Your task to perform on an android device: Clear the shopping cart on costco.com. Add "acer nitro" to the cart on costco.com, then select checkout. Image 0: 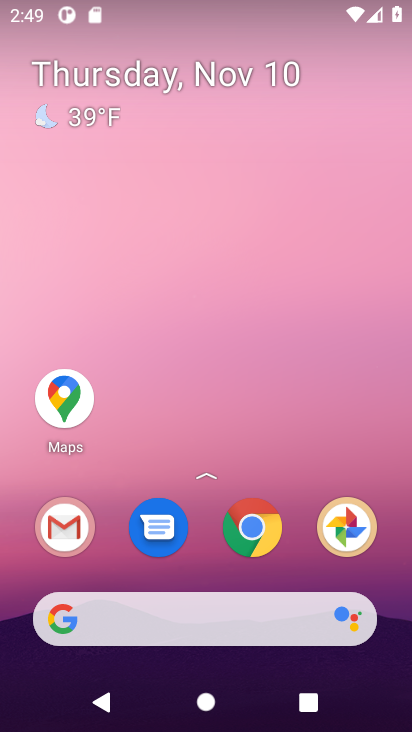
Step 0: drag from (112, 562) to (162, 94)
Your task to perform on an android device: Clear the shopping cart on costco.com. Add "acer nitro" to the cart on costco.com, then select checkout. Image 1: 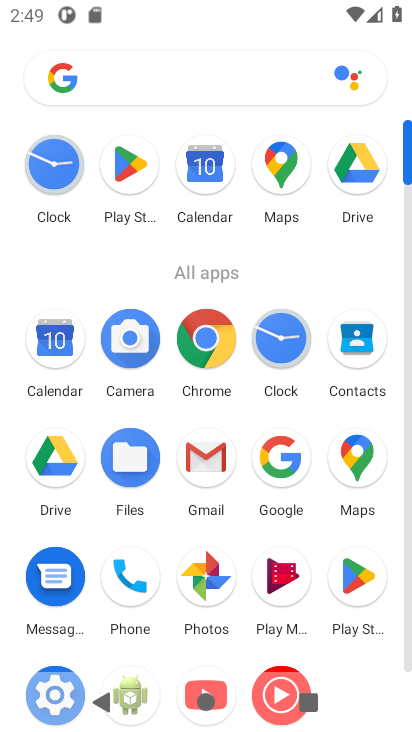
Step 1: click (199, 342)
Your task to perform on an android device: Clear the shopping cart on costco.com. Add "acer nitro" to the cart on costco.com, then select checkout. Image 2: 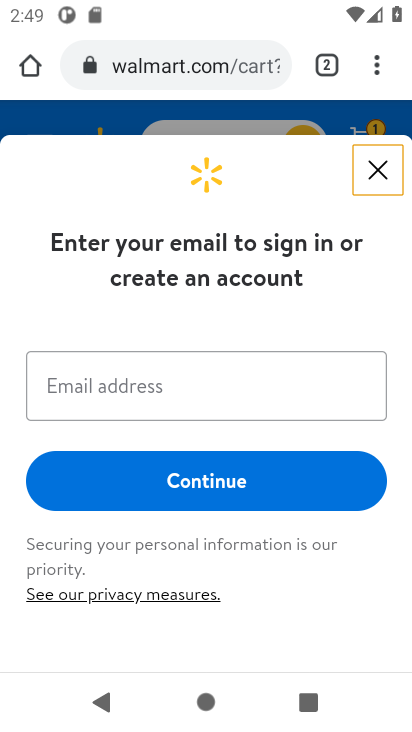
Step 2: click (172, 72)
Your task to perform on an android device: Clear the shopping cart on costco.com. Add "acer nitro" to the cart on costco.com, then select checkout. Image 3: 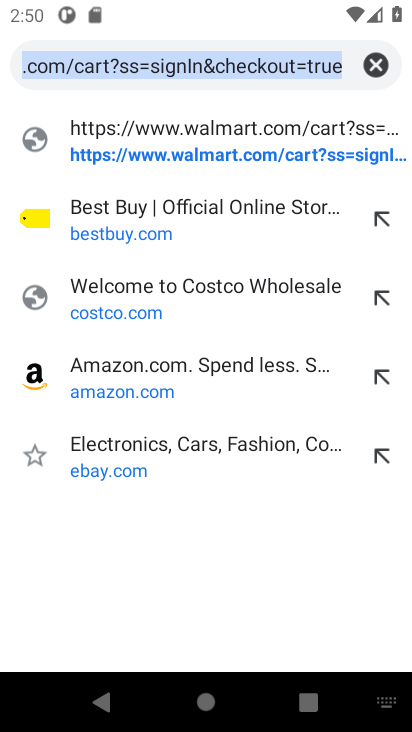
Step 3: click (374, 56)
Your task to perform on an android device: Clear the shopping cart on costco.com. Add "acer nitro" to the cart on costco.com, then select checkout. Image 4: 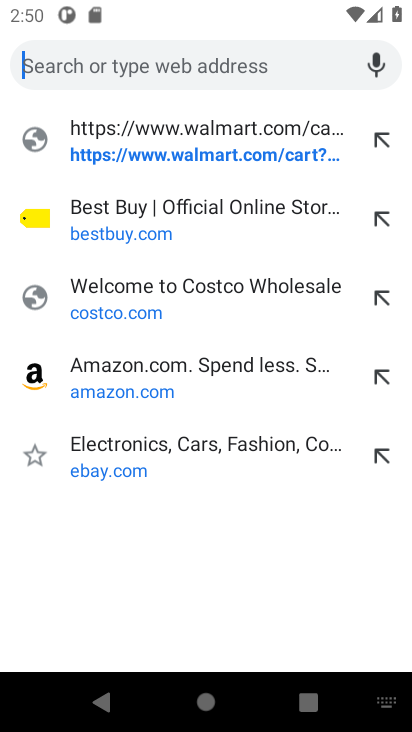
Step 4: type "costco.com"
Your task to perform on an android device: Clear the shopping cart on costco.com. Add "acer nitro" to the cart on costco.com, then select checkout. Image 5: 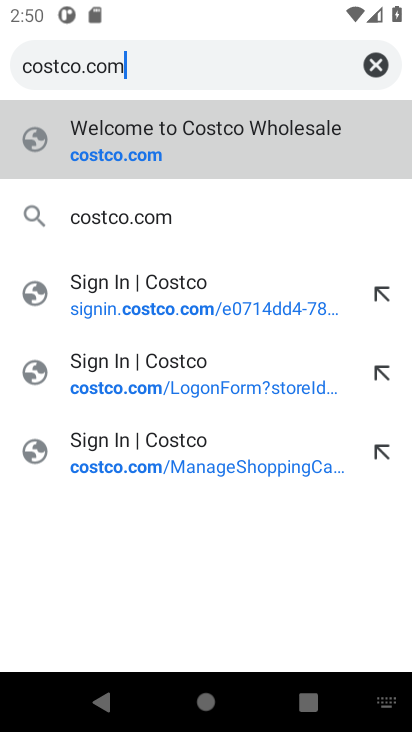
Step 5: press enter
Your task to perform on an android device: Clear the shopping cart on costco.com. Add "acer nitro" to the cart on costco.com, then select checkout. Image 6: 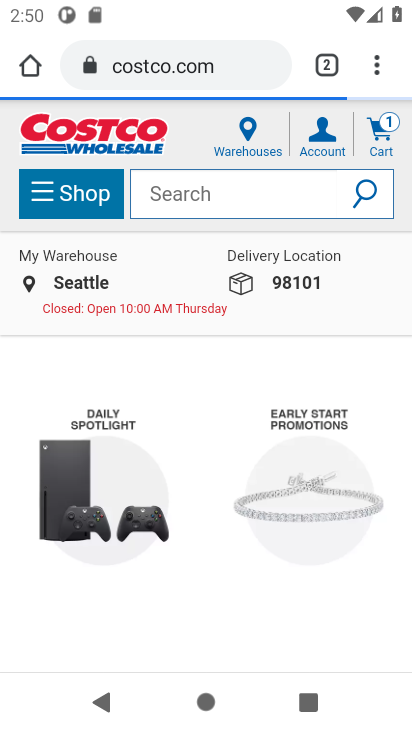
Step 6: click (390, 126)
Your task to perform on an android device: Clear the shopping cart on costco.com. Add "acer nitro" to the cart on costco.com, then select checkout. Image 7: 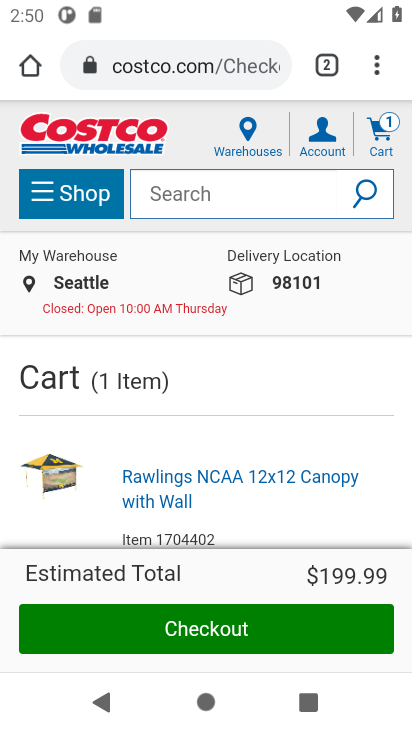
Step 7: drag from (162, 509) to (176, 264)
Your task to perform on an android device: Clear the shopping cart on costco.com. Add "acer nitro" to the cart on costco.com, then select checkout. Image 8: 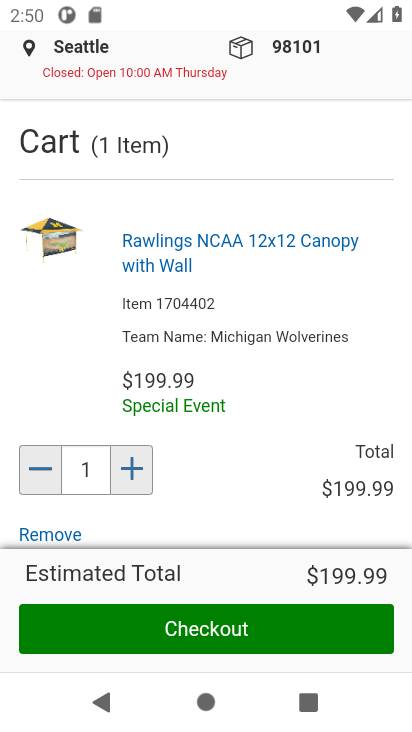
Step 8: click (45, 468)
Your task to perform on an android device: Clear the shopping cart on costco.com. Add "acer nitro" to the cart on costco.com, then select checkout. Image 9: 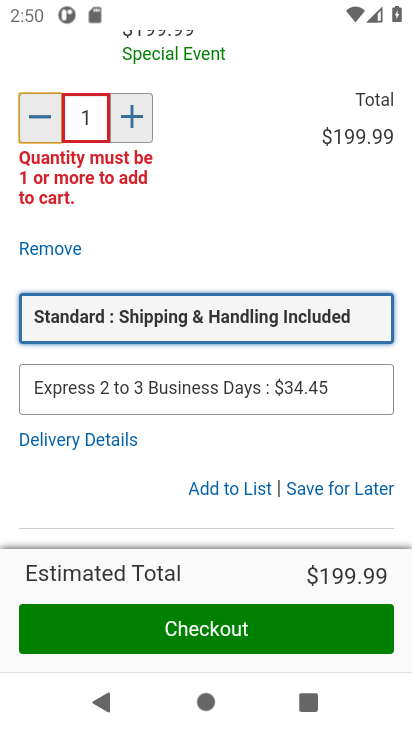
Step 9: drag from (211, 197) to (266, 471)
Your task to perform on an android device: Clear the shopping cart on costco.com. Add "acer nitro" to the cart on costco.com, then select checkout. Image 10: 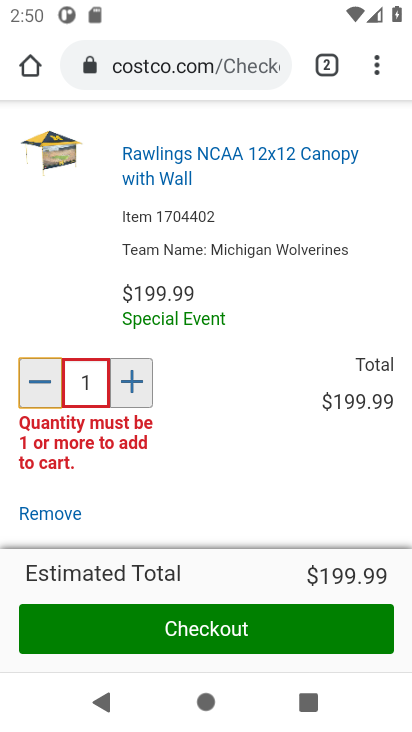
Step 10: drag from (252, 403) to (249, 459)
Your task to perform on an android device: Clear the shopping cart on costco.com. Add "acer nitro" to the cart on costco.com, then select checkout. Image 11: 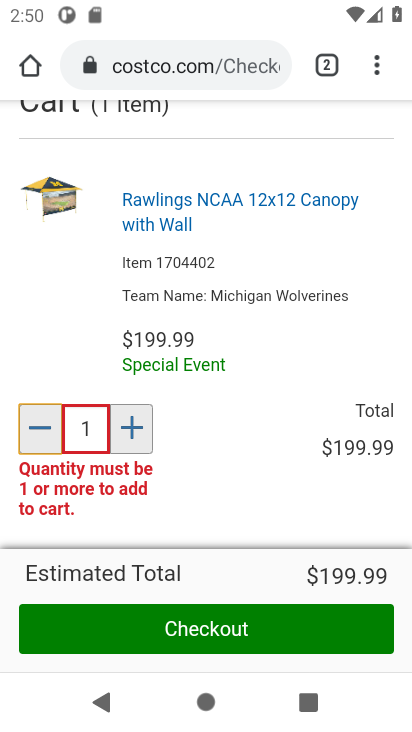
Step 11: drag from (307, 217) to (313, 480)
Your task to perform on an android device: Clear the shopping cart on costco.com. Add "acer nitro" to the cart on costco.com, then select checkout. Image 12: 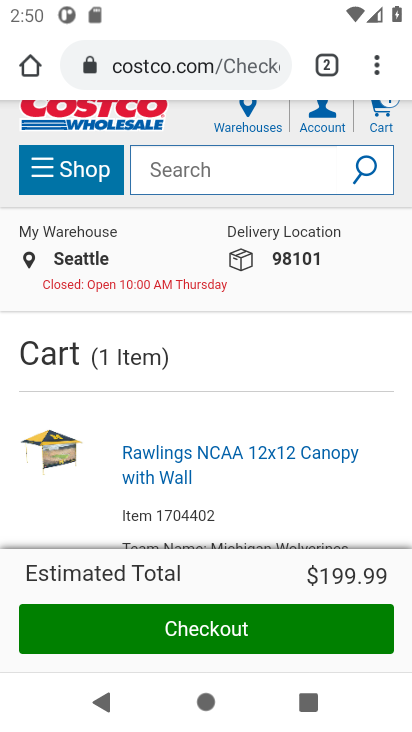
Step 12: drag from (345, 255) to (327, 465)
Your task to perform on an android device: Clear the shopping cart on costco.com. Add "acer nitro" to the cart on costco.com, then select checkout. Image 13: 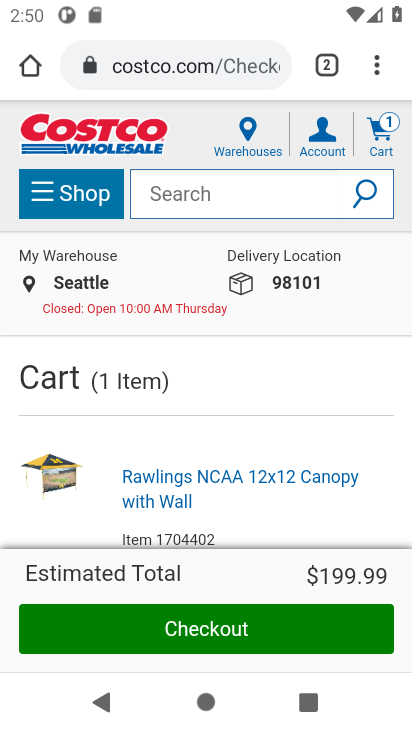
Step 13: drag from (298, 503) to (286, 221)
Your task to perform on an android device: Clear the shopping cart on costco.com. Add "acer nitro" to the cart on costco.com, then select checkout. Image 14: 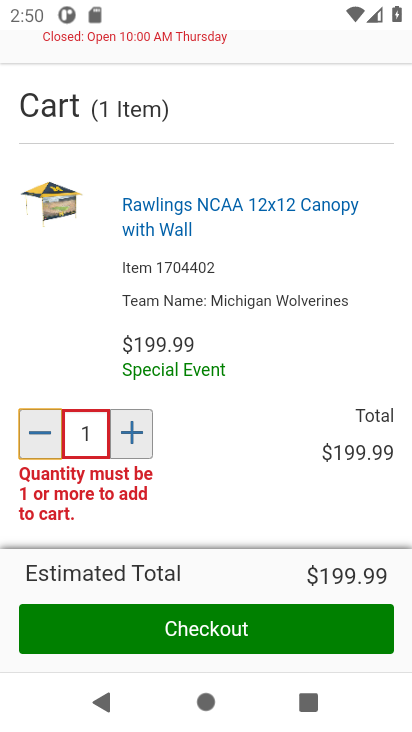
Step 14: drag from (248, 449) to (205, 163)
Your task to perform on an android device: Clear the shopping cart on costco.com. Add "acer nitro" to the cart on costco.com, then select checkout. Image 15: 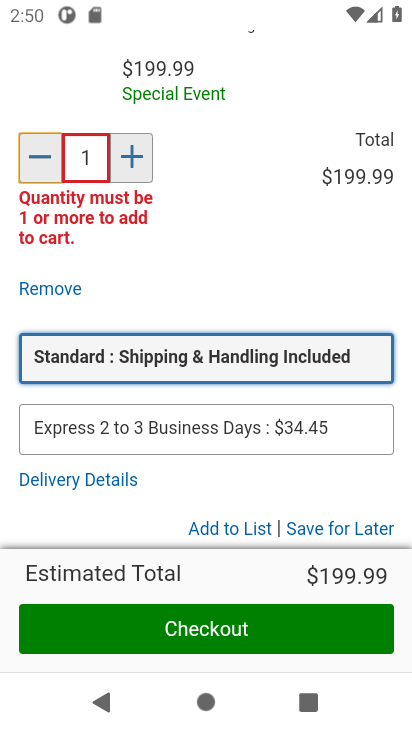
Step 15: drag from (203, 389) to (200, 254)
Your task to perform on an android device: Clear the shopping cart on costco.com. Add "acer nitro" to the cart on costco.com, then select checkout. Image 16: 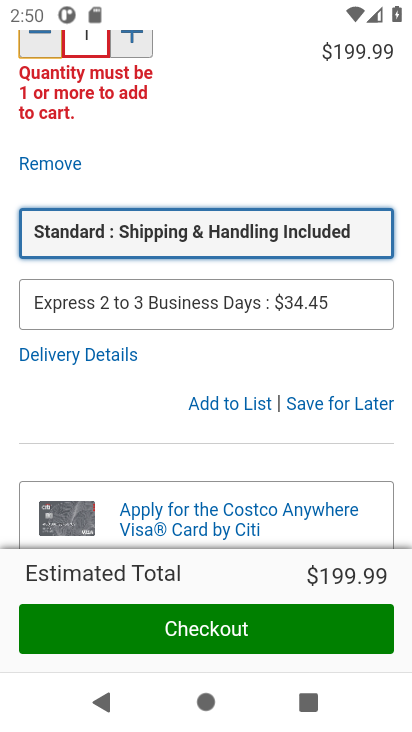
Step 16: drag from (219, 458) to (217, 189)
Your task to perform on an android device: Clear the shopping cart on costco.com. Add "acer nitro" to the cart on costco.com, then select checkout. Image 17: 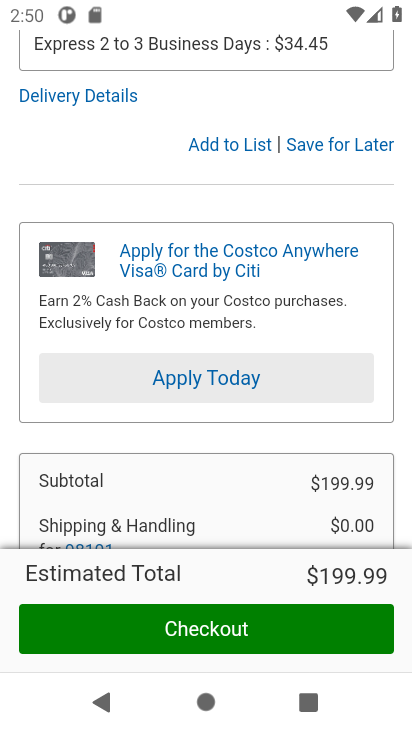
Step 17: drag from (206, 460) to (219, 194)
Your task to perform on an android device: Clear the shopping cart on costco.com. Add "acer nitro" to the cart on costco.com, then select checkout. Image 18: 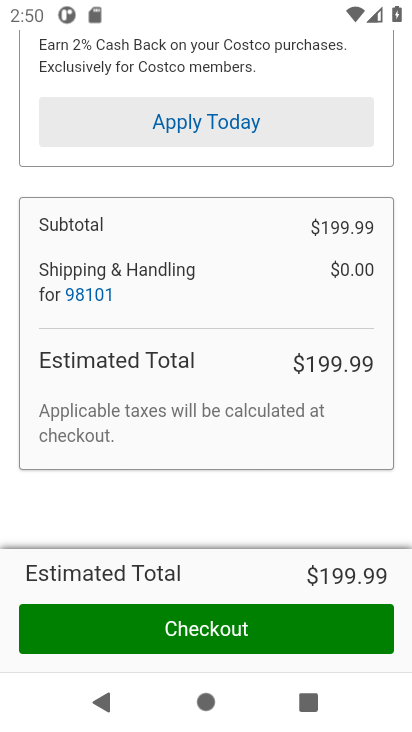
Step 18: drag from (234, 494) to (231, 218)
Your task to perform on an android device: Clear the shopping cart on costco.com. Add "acer nitro" to the cart on costco.com, then select checkout. Image 19: 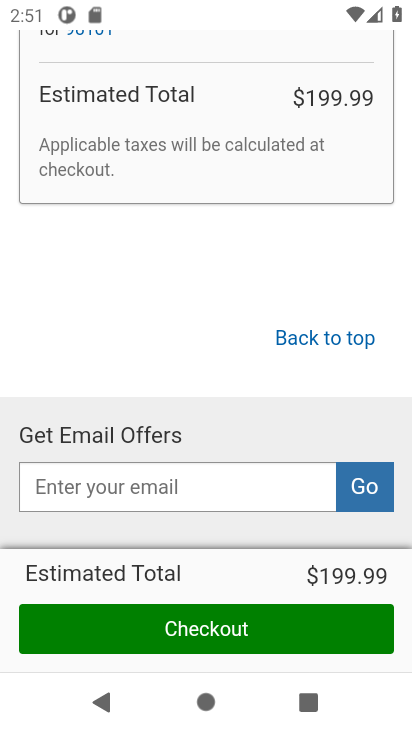
Step 19: drag from (186, 431) to (204, 218)
Your task to perform on an android device: Clear the shopping cart on costco.com. Add "acer nitro" to the cart on costco.com, then select checkout. Image 20: 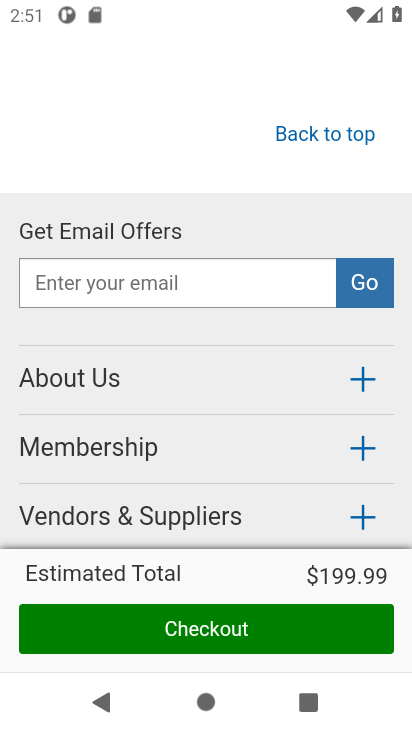
Step 20: drag from (179, 478) to (199, 186)
Your task to perform on an android device: Clear the shopping cart on costco.com. Add "acer nitro" to the cart on costco.com, then select checkout. Image 21: 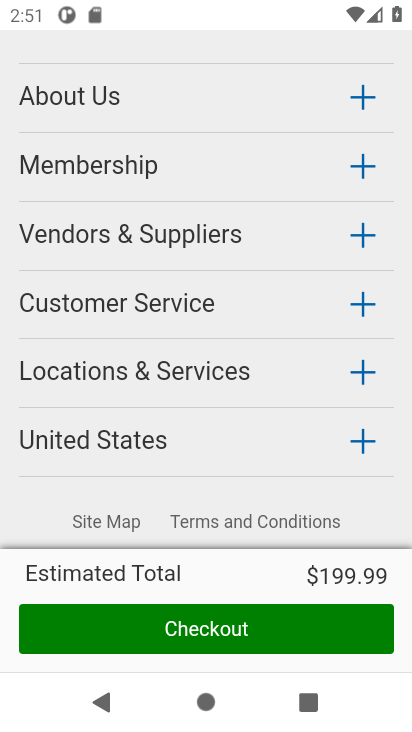
Step 21: drag from (226, 177) to (217, 458)
Your task to perform on an android device: Clear the shopping cart on costco.com. Add "acer nitro" to the cart on costco.com, then select checkout. Image 22: 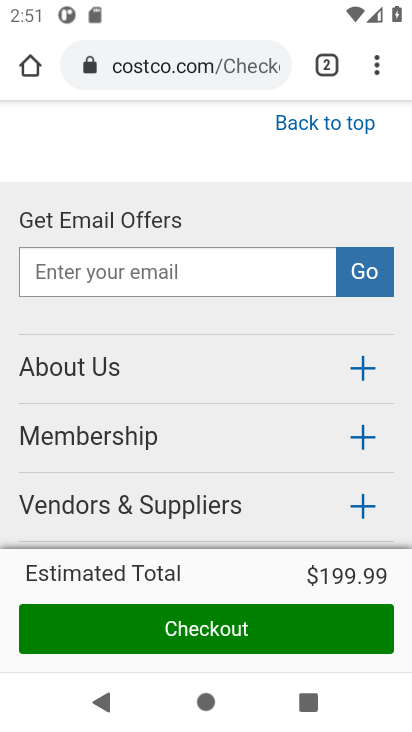
Step 22: drag from (281, 206) to (242, 467)
Your task to perform on an android device: Clear the shopping cart on costco.com. Add "acer nitro" to the cart on costco.com, then select checkout. Image 23: 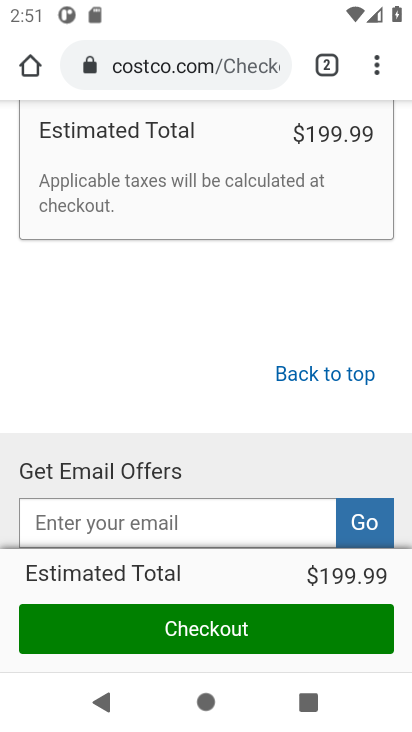
Step 23: drag from (257, 200) to (252, 473)
Your task to perform on an android device: Clear the shopping cart on costco.com. Add "acer nitro" to the cart on costco.com, then select checkout. Image 24: 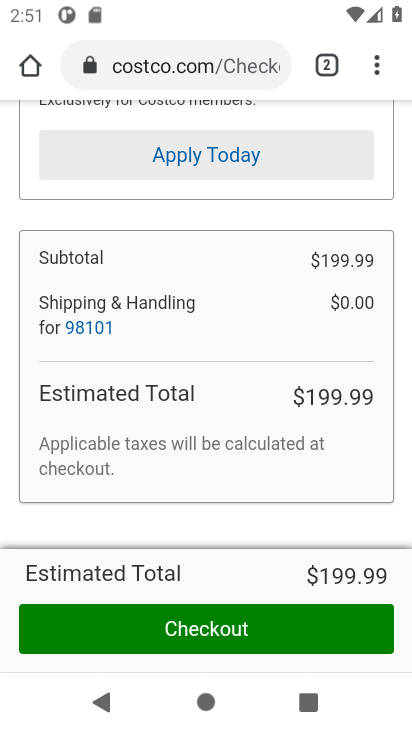
Step 24: drag from (281, 75) to (268, 402)
Your task to perform on an android device: Clear the shopping cart on costco.com. Add "acer nitro" to the cart on costco.com, then select checkout. Image 25: 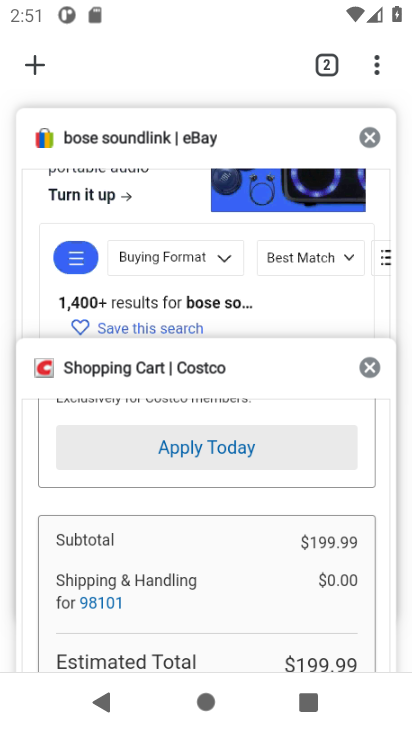
Step 25: drag from (239, 151) to (248, 355)
Your task to perform on an android device: Clear the shopping cart on costco.com. Add "acer nitro" to the cart on costco.com, then select checkout. Image 26: 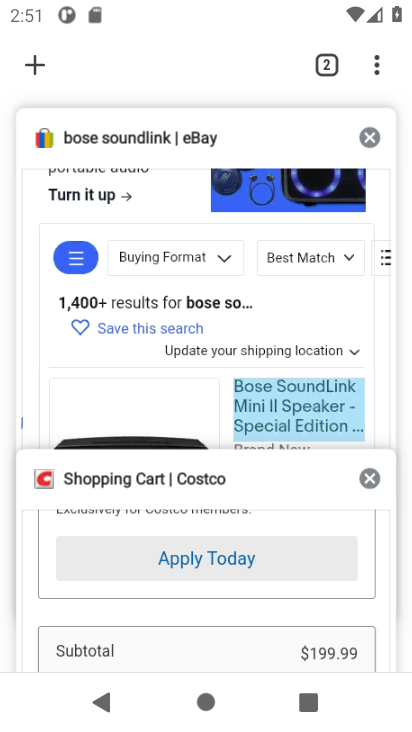
Step 26: click (196, 471)
Your task to perform on an android device: Clear the shopping cart on costco.com. Add "acer nitro" to the cart on costco.com, then select checkout. Image 27: 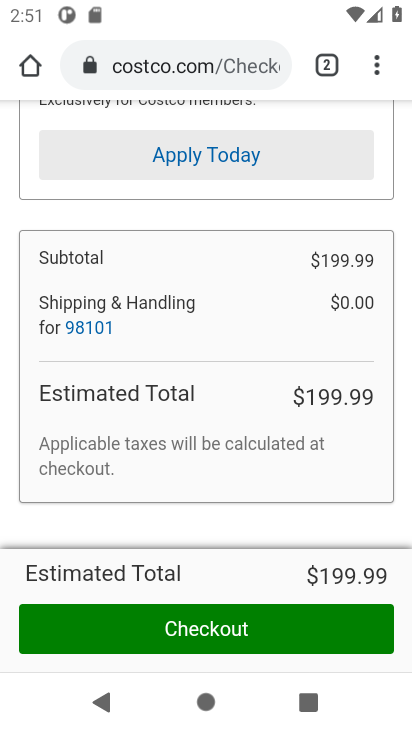
Step 27: drag from (195, 296) to (232, 481)
Your task to perform on an android device: Clear the shopping cart on costco.com. Add "acer nitro" to the cart on costco.com, then select checkout. Image 28: 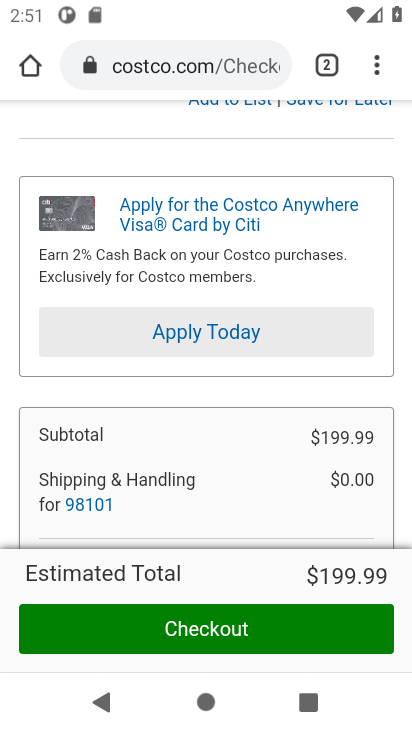
Step 28: drag from (196, 256) to (216, 470)
Your task to perform on an android device: Clear the shopping cart on costco.com. Add "acer nitro" to the cart on costco.com, then select checkout. Image 29: 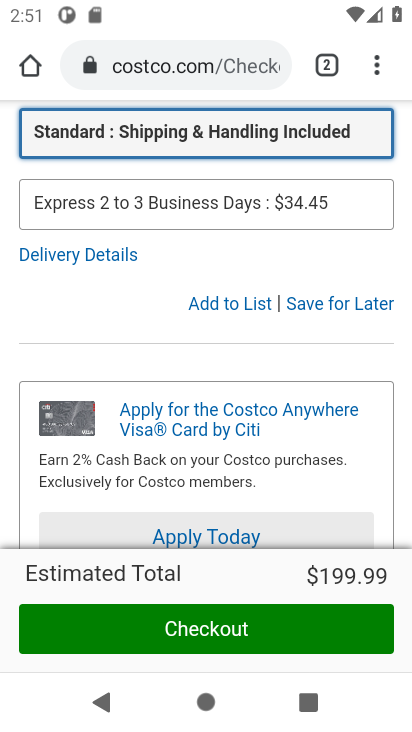
Step 29: drag from (219, 193) to (238, 428)
Your task to perform on an android device: Clear the shopping cart on costco.com. Add "acer nitro" to the cart on costco.com, then select checkout. Image 30: 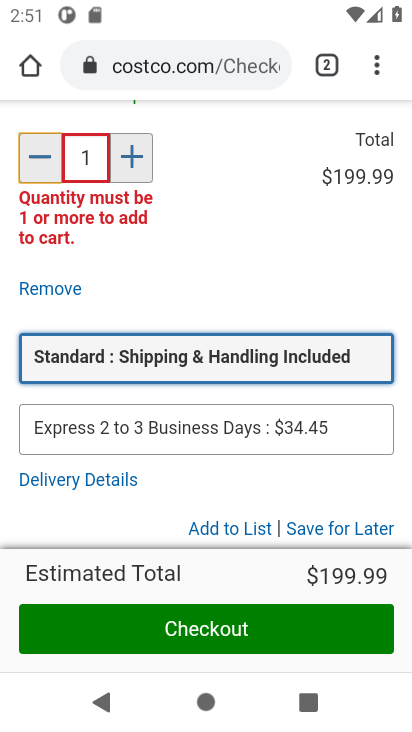
Step 30: drag from (253, 455) to (248, 266)
Your task to perform on an android device: Clear the shopping cart on costco.com. Add "acer nitro" to the cart on costco.com, then select checkout. Image 31: 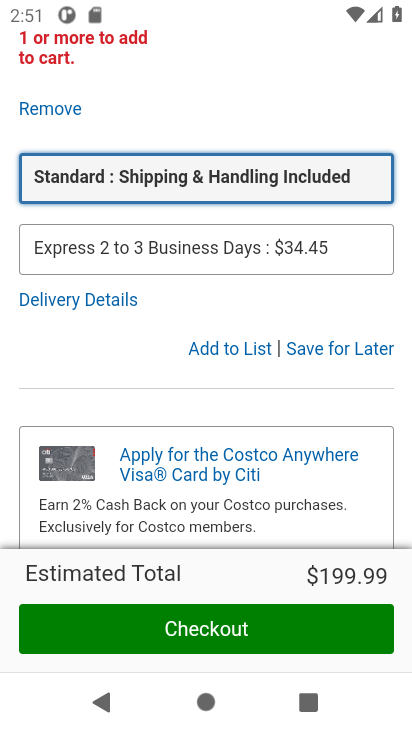
Step 31: drag from (251, 277) to (245, 410)
Your task to perform on an android device: Clear the shopping cart on costco.com. Add "acer nitro" to the cart on costco.com, then select checkout. Image 32: 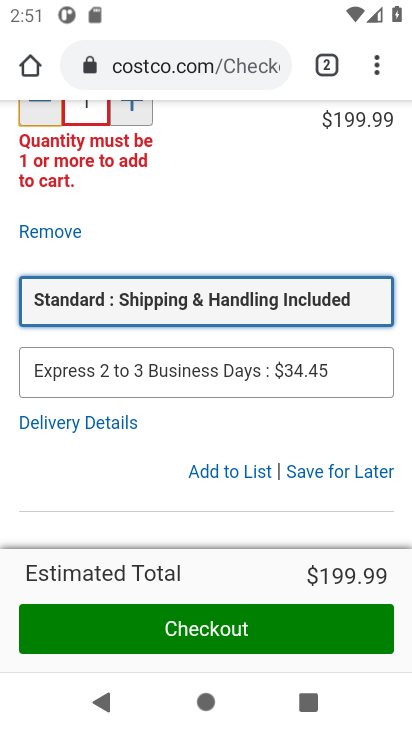
Step 32: drag from (139, 220) to (161, 400)
Your task to perform on an android device: Clear the shopping cart on costco.com. Add "acer nitro" to the cart on costco.com, then select checkout. Image 33: 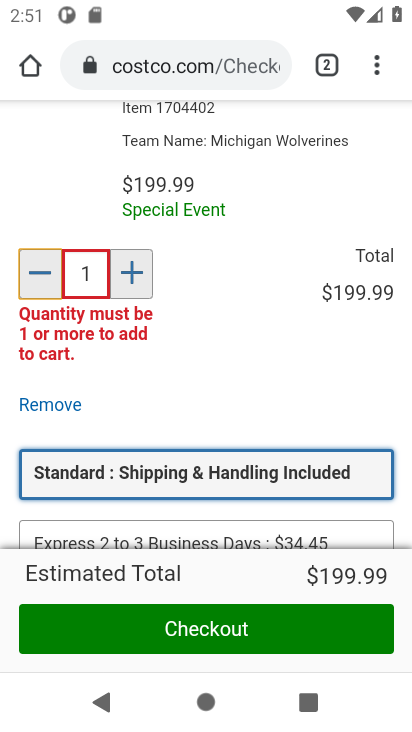
Step 33: drag from (180, 168) to (188, 386)
Your task to perform on an android device: Clear the shopping cart on costco.com. Add "acer nitro" to the cart on costco.com, then select checkout. Image 34: 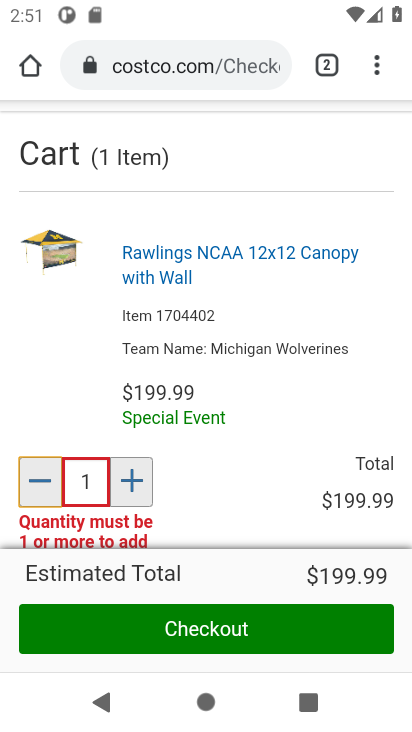
Step 34: drag from (109, 484) to (107, 288)
Your task to perform on an android device: Clear the shopping cart on costco.com. Add "acer nitro" to the cart on costco.com, then select checkout. Image 35: 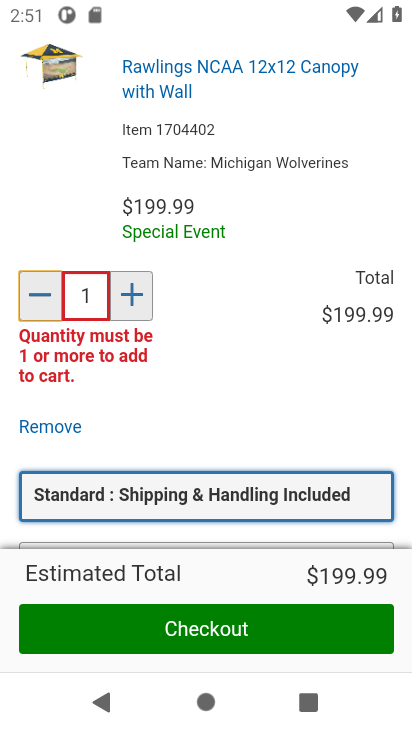
Step 35: click (49, 425)
Your task to perform on an android device: Clear the shopping cart on costco.com. Add "acer nitro" to the cart on costco.com, then select checkout. Image 36: 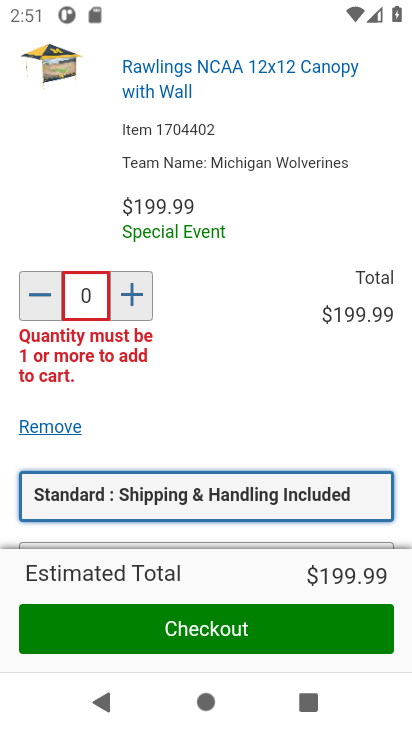
Step 36: click (49, 425)
Your task to perform on an android device: Clear the shopping cart on costco.com. Add "acer nitro" to the cart on costco.com, then select checkout. Image 37: 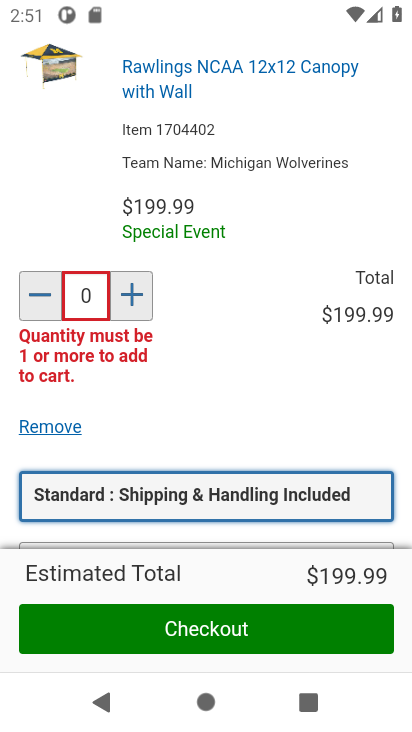
Step 37: click (50, 425)
Your task to perform on an android device: Clear the shopping cart on costco.com. Add "acer nitro" to the cart on costco.com, then select checkout. Image 38: 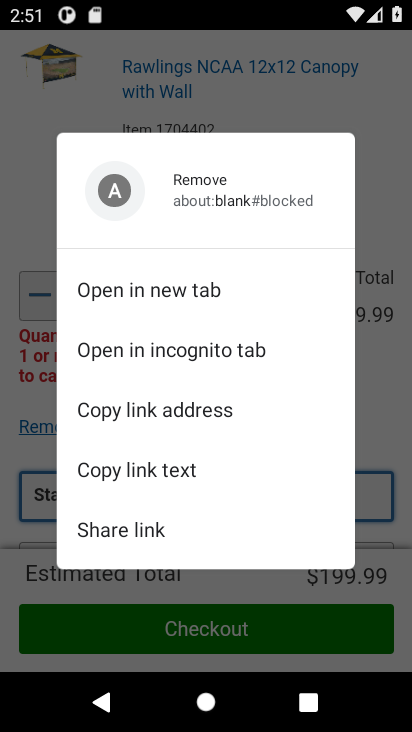
Step 38: click (26, 399)
Your task to perform on an android device: Clear the shopping cart on costco.com. Add "acer nitro" to the cart on costco.com, then select checkout. Image 39: 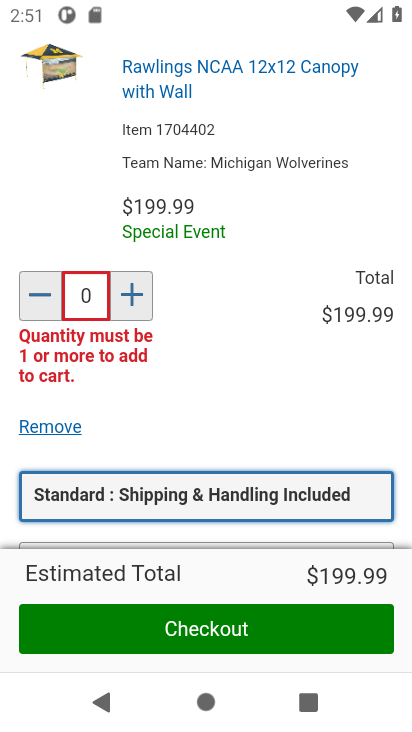
Step 39: click (41, 429)
Your task to perform on an android device: Clear the shopping cart on costco.com. Add "acer nitro" to the cart on costco.com, then select checkout. Image 40: 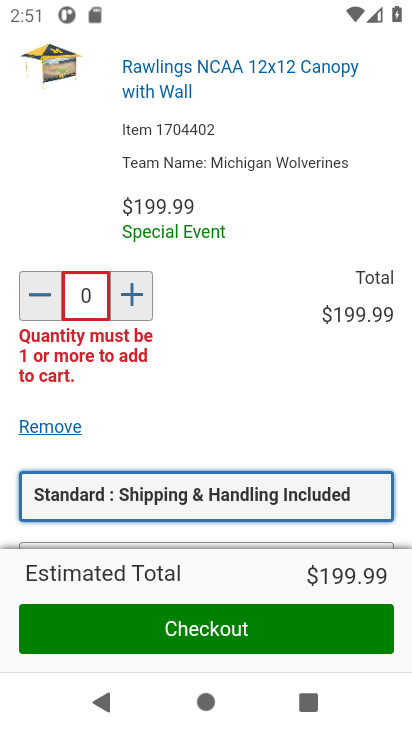
Step 40: click (41, 429)
Your task to perform on an android device: Clear the shopping cart on costco.com. Add "acer nitro" to the cart on costco.com, then select checkout. Image 41: 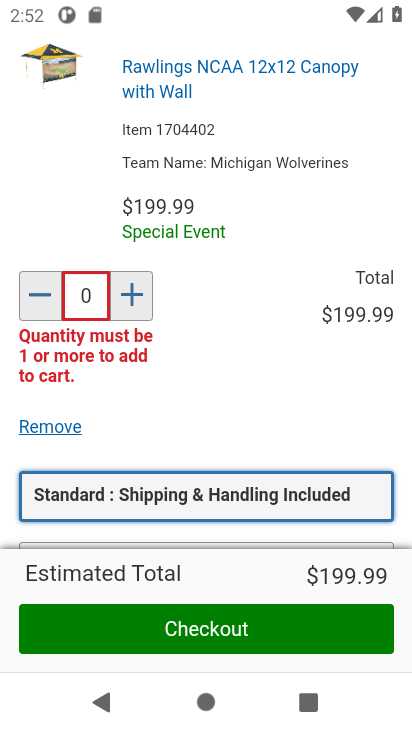
Step 41: click (41, 429)
Your task to perform on an android device: Clear the shopping cart on costco.com. Add "acer nitro" to the cart on costco.com, then select checkout. Image 42: 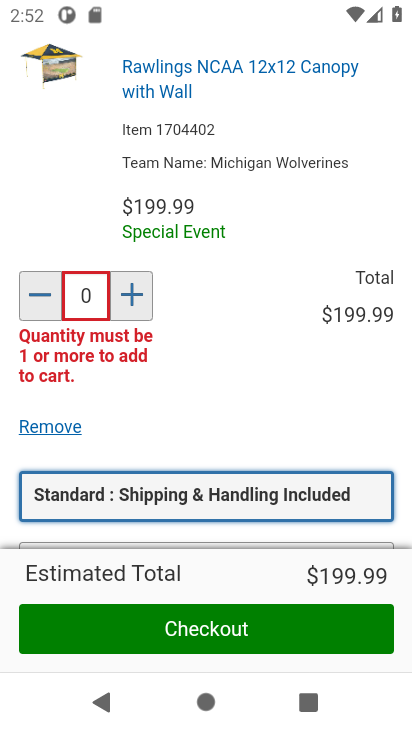
Step 42: click (41, 429)
Your task to perform on an android device: Clear the shopping cart on costco.com. Add "acer nitro" to the cart on costco.com, then select checkout. Image 43: 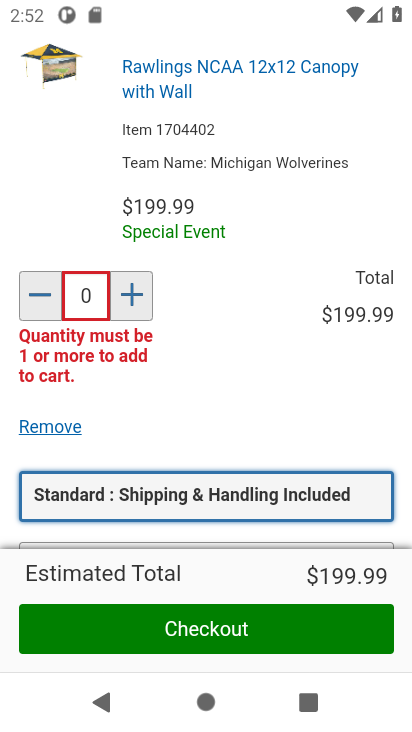
Step 43: click (41, 429)
Your task to perform on an android device: Clear the shopping cart on costco.com. Add "acer nitro" to the cart on costco.com, then select checkout. Image 44: 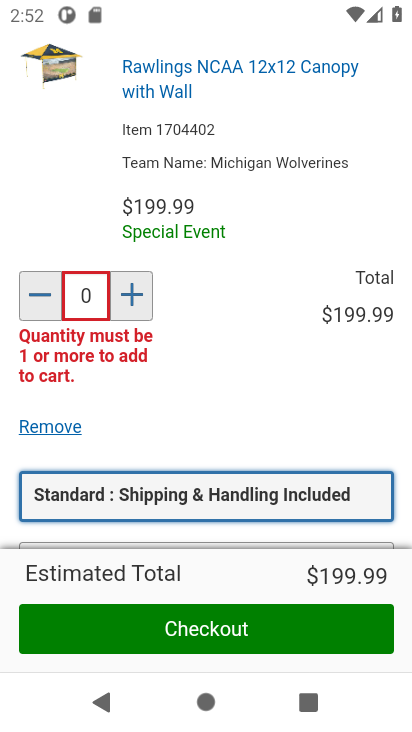
Step 44: click (41, 429)
Your task to perform on an android device: Clear the shopping cart on costco.com. Add "acer nitro" to the cart on costco.com, then select checkout. Image 45: 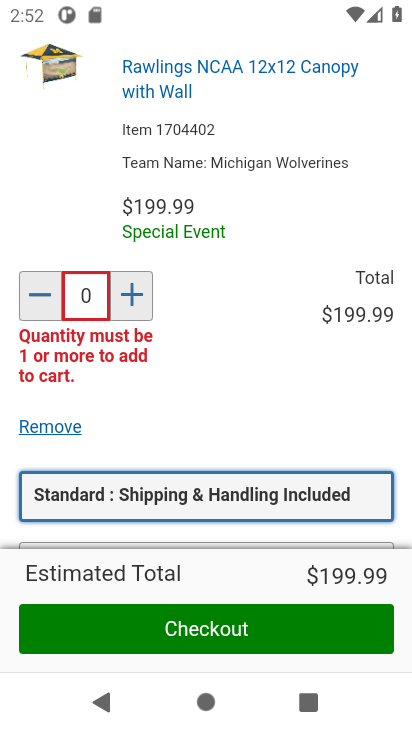
Step 45: click (41, 429)
Your task to perform on an android device: Clear the shopping cart on costco.com. Add "acer nitro" to the cart on costco.com, then select checkout. Image 46: 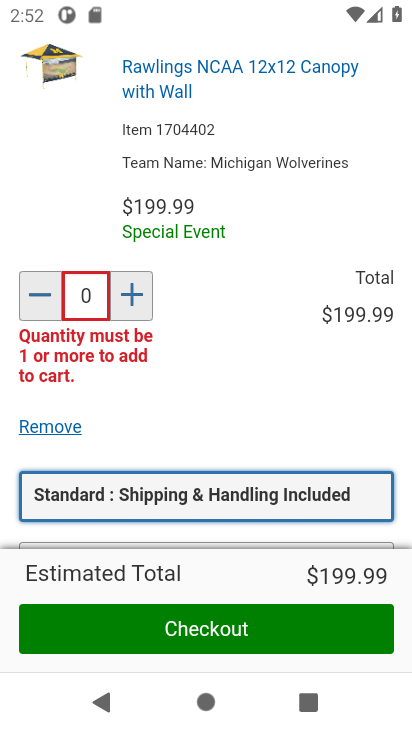
Step 46: click (26, 292)
Your task to perform on an android device: Clear the shopping cart on costco.com. Add "acer nitro" to the cart on costco.com, then select checkout. Image 47: 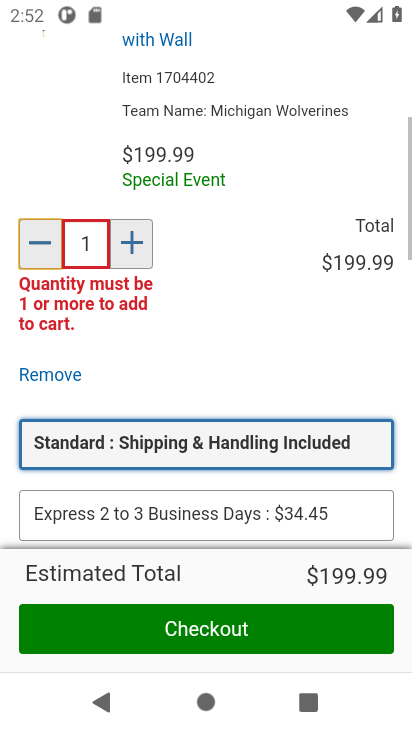
Step 47: drag from (259, 115) to (249, 384)
Your task to perform on an android device: Clear the shopping cart on costco.com. Add "acer nitro" to the cart on costco.com, then select checkout. Image 48: 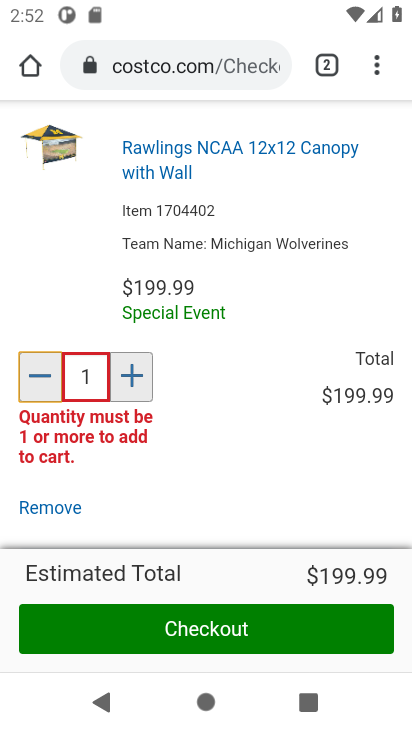
Step 48: drag from (211, 172) to (213, 441)
Your task to perform on an android device: Clear the shopping cart on costco.com. Add "acer nitro" to the cart on costco.com, then select checkout. Image 49: 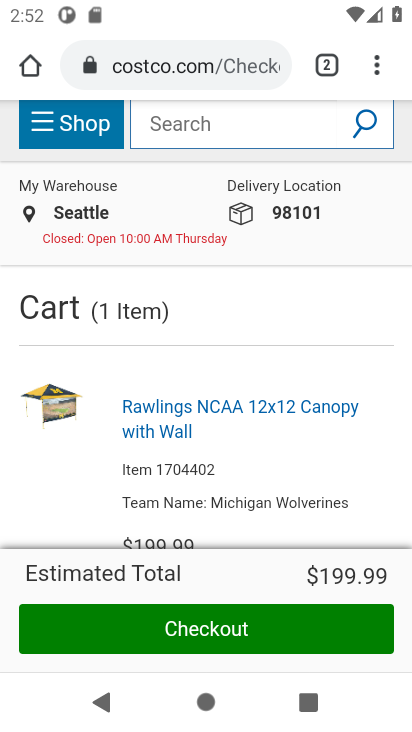
Step 49: drag from (219, 162) to (213, 446)
Your task to perform on an android device: Clear the shopping cart on costco.com. Add "acer nitro" to the cart on costco.com, then select checkout. Image 50: 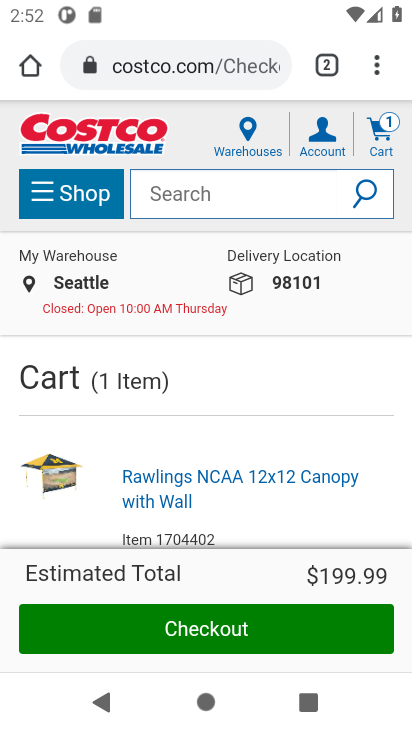
Step 50: click (194, 210)
Your task to perform on an android device: Clear the shopping cart on costco.com. Add "acer nitro" to the cart on costco.com, then select checkout. Image 51: 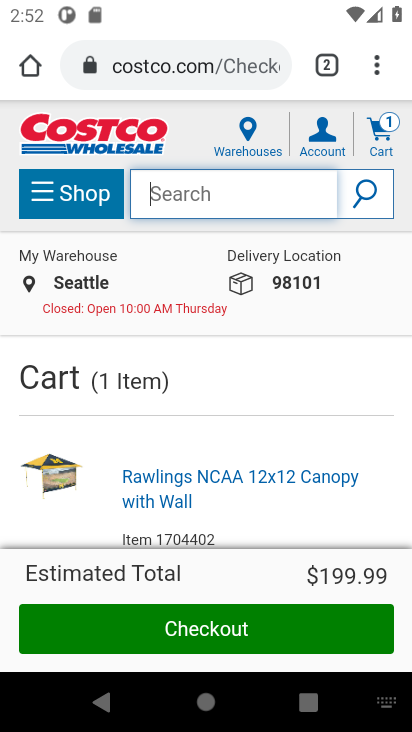
Step 51: type "acer nitro"
Your task to perform on an android device: Clear the shopping cart on costco.com. Add "acer nitro" to the cart on costco.com, then select checkout. Image 52: 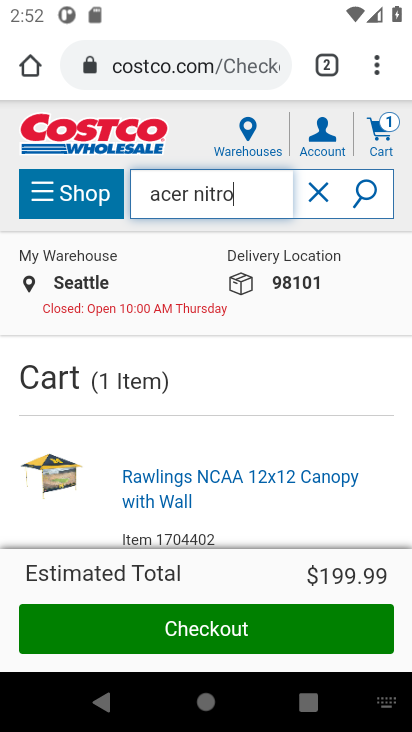
Step 52: press enter
Your task to perform on an android device: Clear the shopping cart on costco.com. Add "acer nitro" to the cart on costco.com, then select checkout. Image 53: 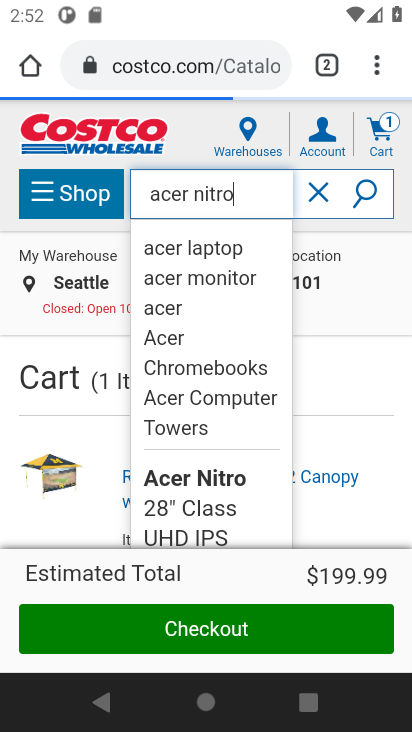
Step 53: press enter
Your task to perform on an android device: Clear the shopping cart on costco.com. Add "acer nitro" to the cart on costco.com, then select checkout. Image 54: 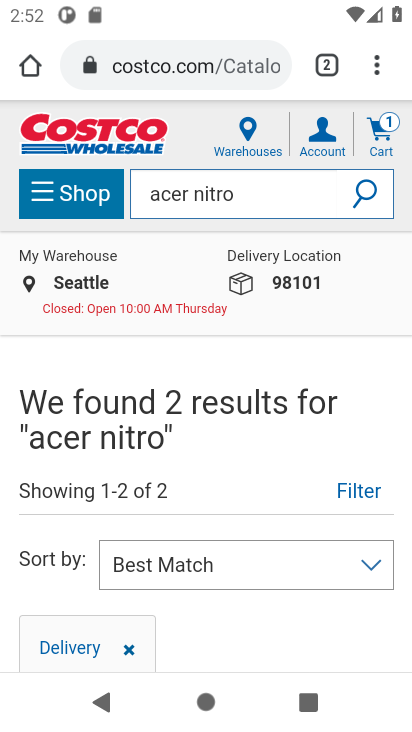
Step 54: drag from (164, 465) to (138, 211)
Your task to perform on an android device: Clear the shopping cart on costco.com. Add "acer nitro" to the cart on costco.com, then select checkout. Image 55: 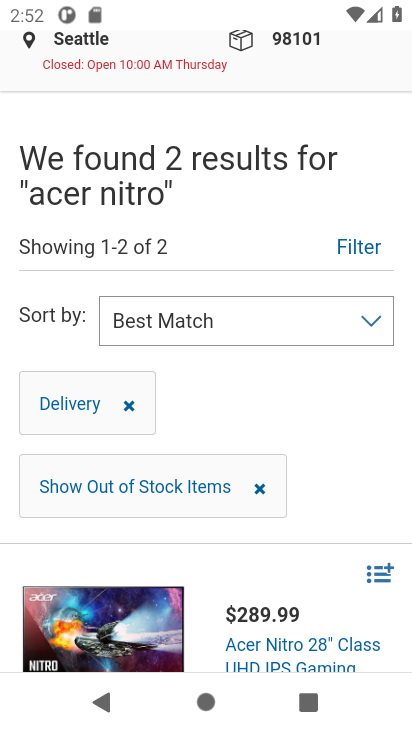
Step 55: drag from (149, 550) to (154, 280)
Your task to perform on an android device: Clear the shopping cart on costco.com. Add "acer nitro" to the cart on costco.com, then select checkout. Image 56: 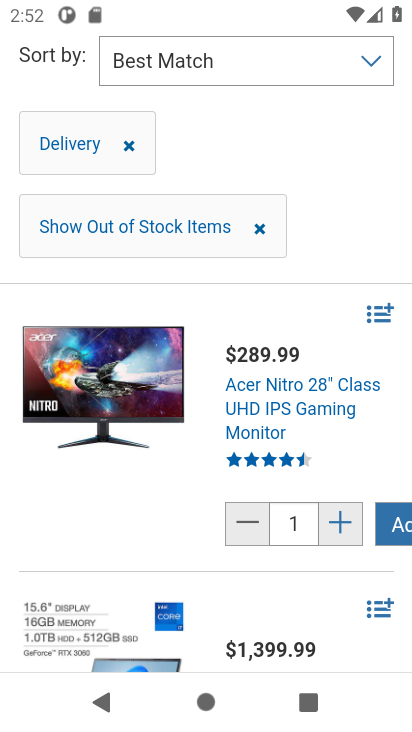
Step 56: click (390, 527)
Your task to perform on an android device: Clear the shopping cart on costco.com. Add "acer nitro" to the cart on costco.com, then select checkout. Image 57: 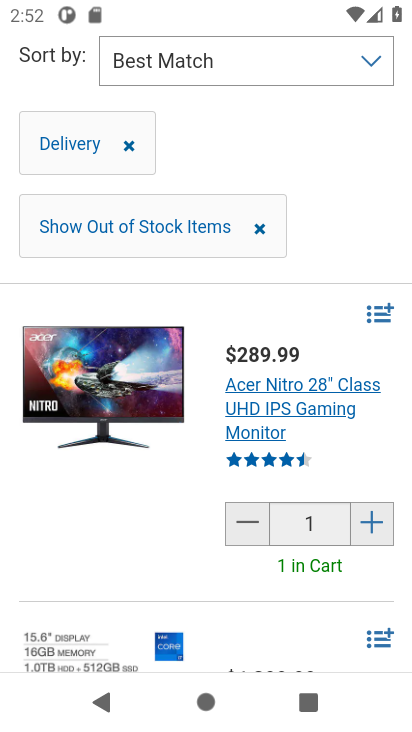
Step 57: drag from (316, 199) to (309, 534)
Your task to perform on an android device: Clear the shopping cart on costco.com. Add "acer nitro" to the cart on costco.com, then select checkout. Image 58: 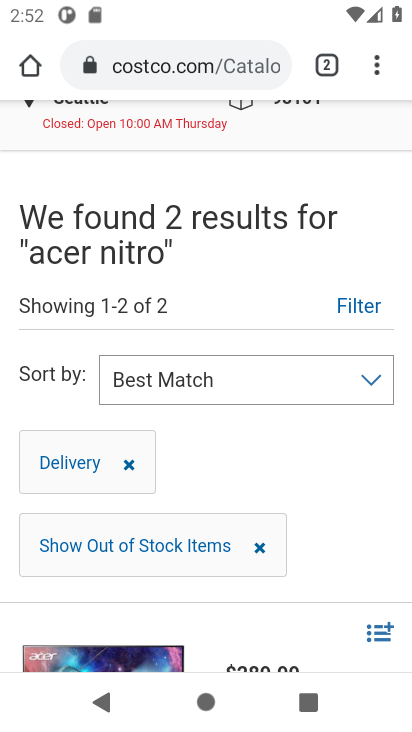
Step 58: drag from (269, 263) to (269, 527)
Your task to perform on an android device: Clear the shopping cart on costco.com. Add "acer nitro" to the cart on costco.com, then select checkout. Image 59: 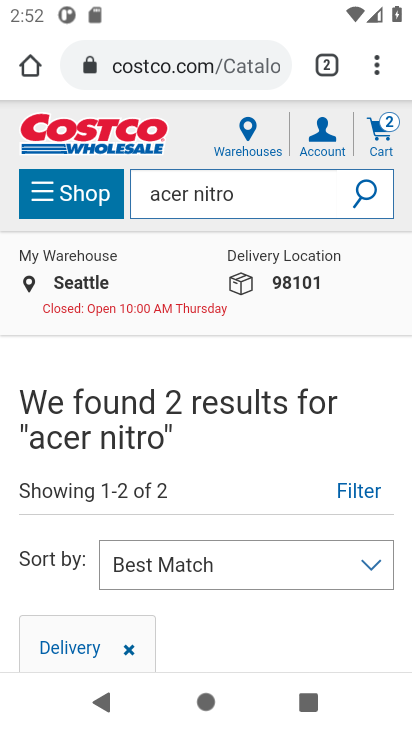
Step 59: click (384, 129)
Your task to perform on an android device: Clear the shopping cart on costco.com. Add "acer nitro" to the cart on costco.com, then select checkout. Image 60: 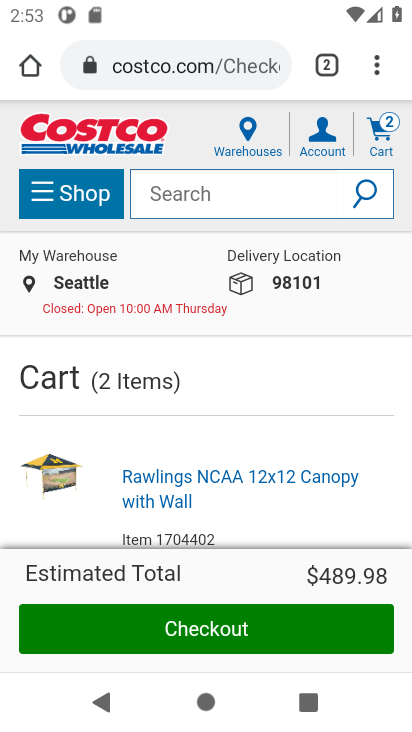
Step 60: click (197, 635)
Your task to perform on an android device: Clear the shopping cart on costco.com. Add "acer nitro" to the cart on costco.com, then select checkout. Image 61: 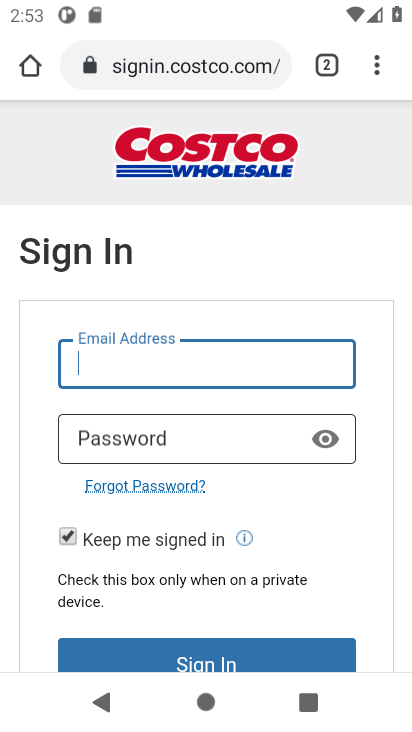
Step 61: task complete